Your task to perform on an android device: Open the stopwatch Image 0: 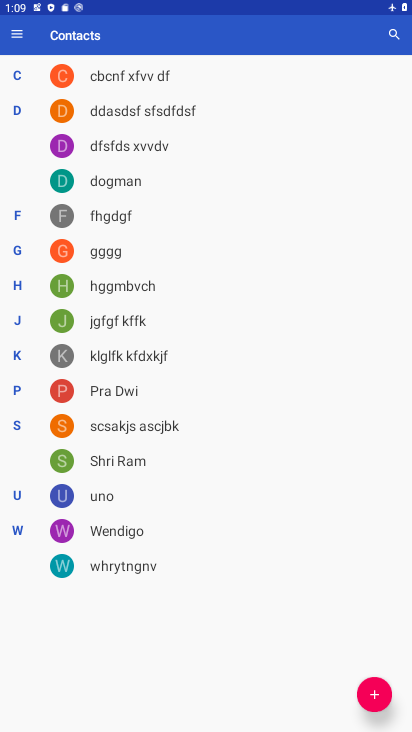
Step 0: press home button
Your task to perform on an android device: Open the stopwatch Image 1: 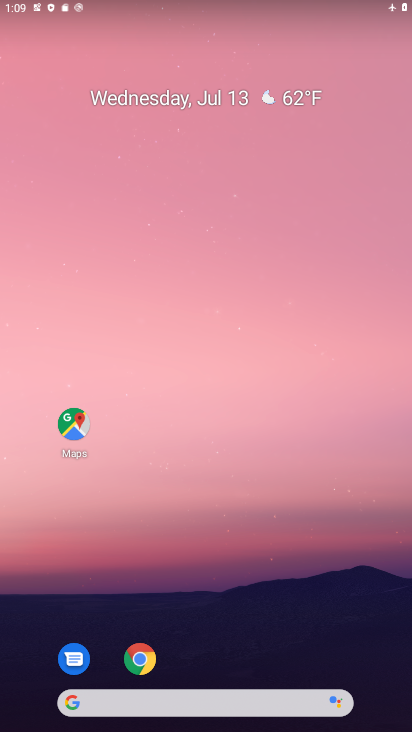
Step 1: drag from (228, 713) to (180, 142)
Your task to perform on an android device: Open the stopwatch Image 2: 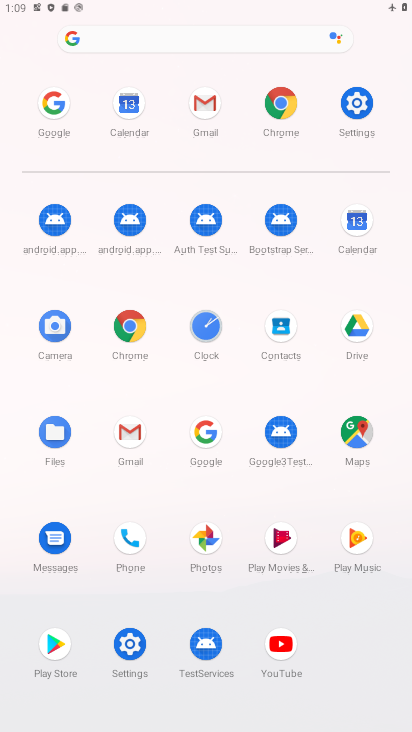
Step 2: click (208, 324)
Your task to perform on an android device: Open the stopwatch Image 3: 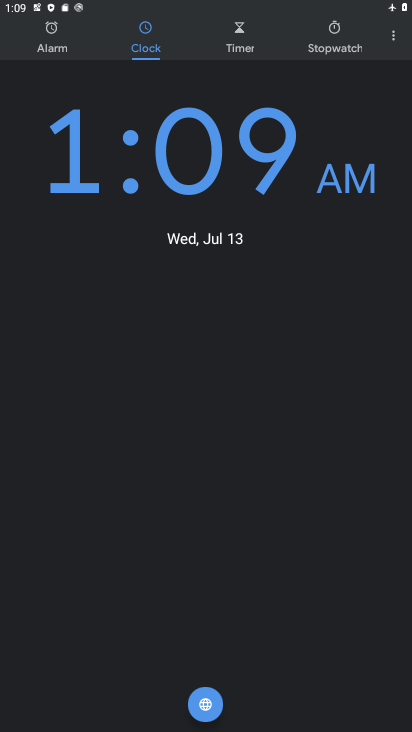
Step 3: click (338, 35)
Your task to perform on an android device: Open the stopwatch Image 4: 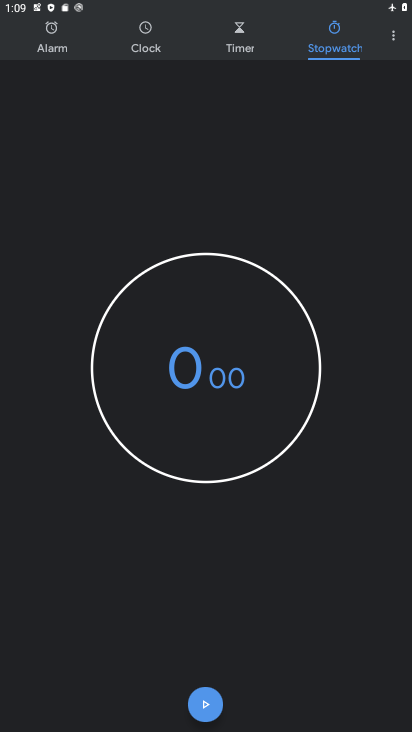
Step 4: task complete